Your task to perform on an android device: search for starred emails in the gmail app Image 0: 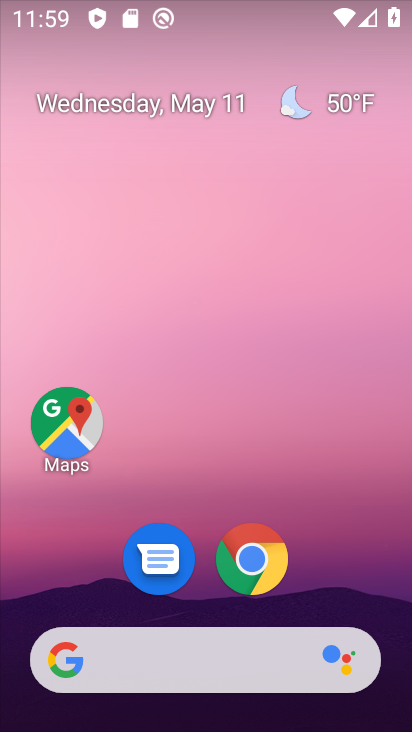
Step 0: drag from (326, 574) to (251, 177)
Your task to perform on an android device: search for starred emails in the gmail app Image 1: 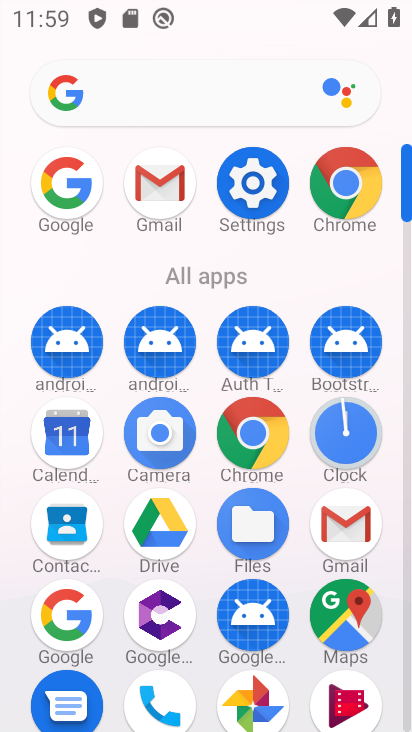
Step 1: click (168, 197)
Your task to perform on an android device: search for starred emails in the gmail app Image 2: 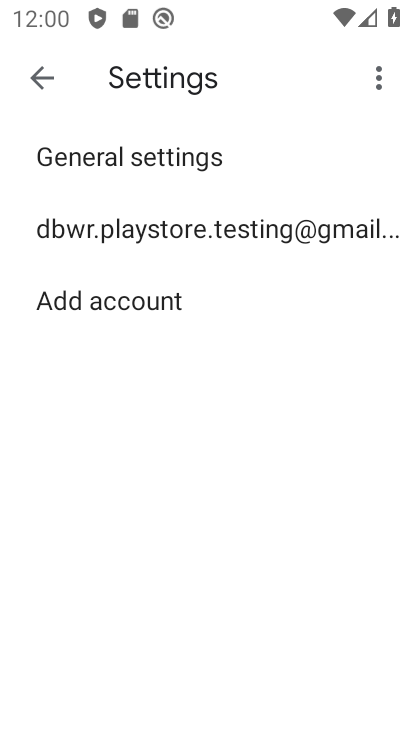
Step 2: press back button
Your task to perform on an android device: search for starred emails in the gmail app Image 3: 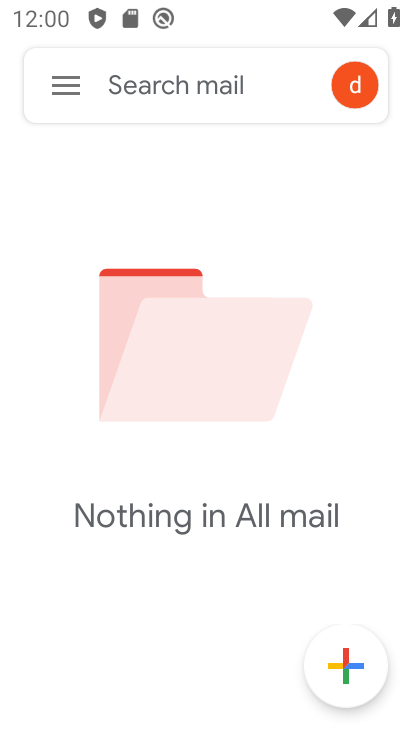
Step 3: click (65, 85)
Your task to perform on an android device: search for starred emails in the gmail app Image 4: 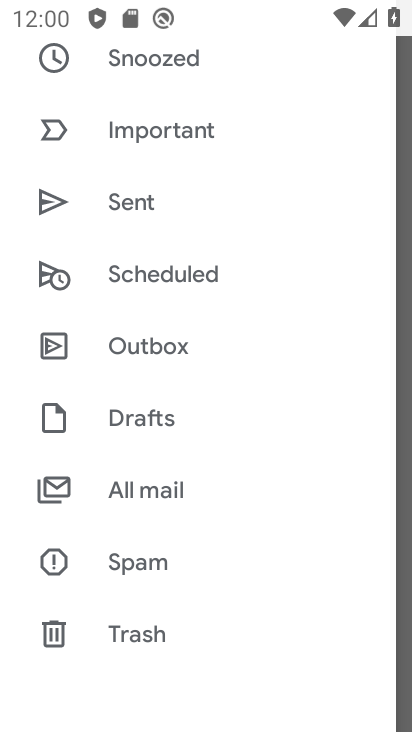
Step 4: click (178, 471)
Your task to perform on an android device: search for starred emails in the gmail app Image 5: 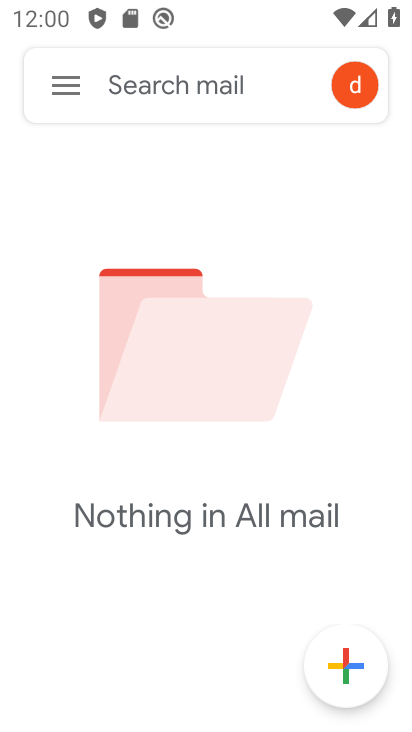
Step 5: click (74, 90)
Your task to perform on an android device: search for starred emails in the gmail app Image 6: 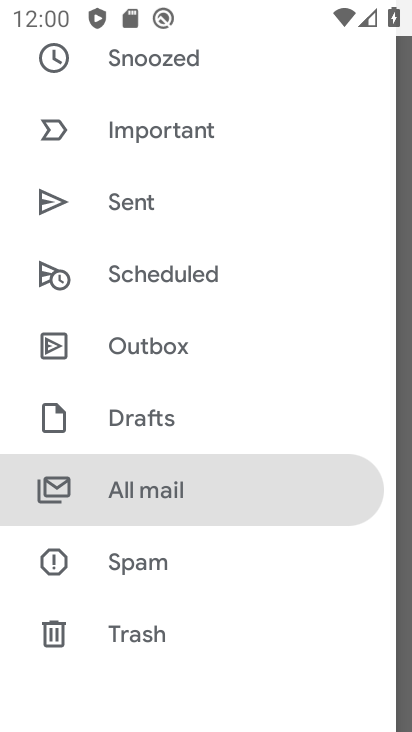
Step 6: click (139, 685)
Your task to perform on an android device: search for starred emails in the gmail app Image 7: 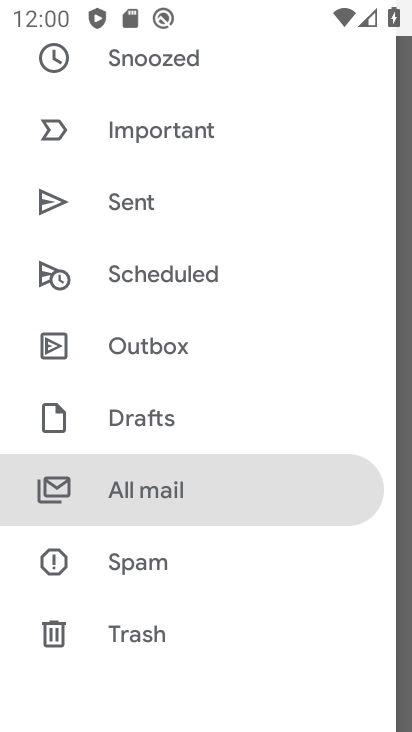
Step 7: drag from (70, 222) to (6, 661)
Your task to perform on an android device: search for starred emails in the gmail app Image 8: 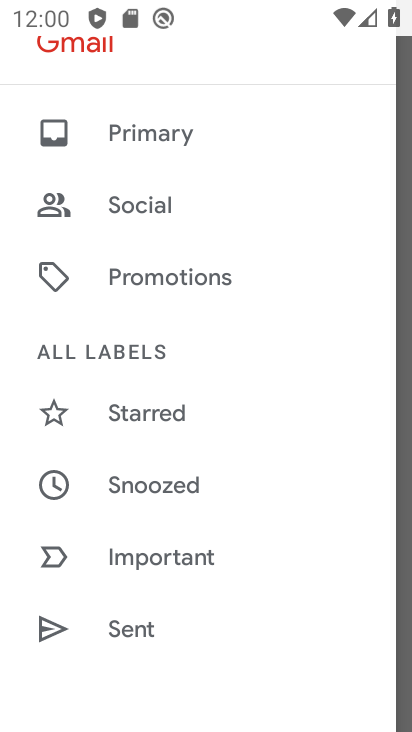
Step 8: click (160, 405)
Your task to perform on an android device: search for starred emails in the gmail app Image 9: 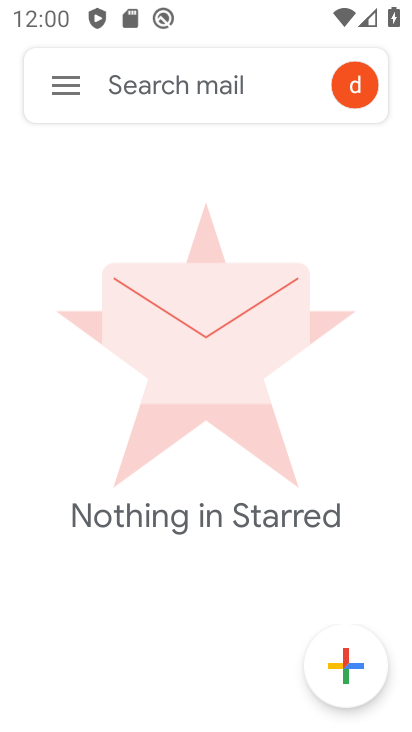
Step 9: task complete